Your task to perform on an android device: Go to Yahoo.com Image 0: 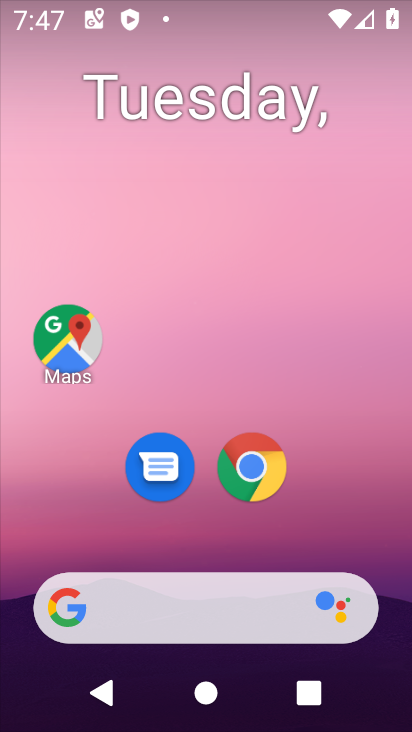
Step 0: click (274, 69)
Your task to perform on an android device: Go to Yahoo.com Image 1: 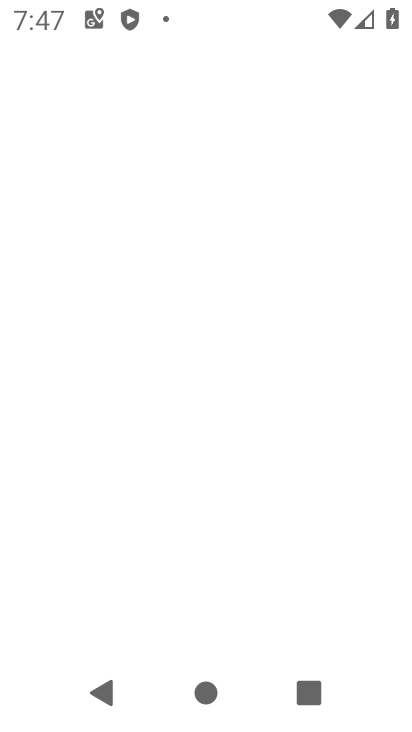
Step 1: press home button
Your task to perform on an android device: Go to Yahoo.com Image 2: 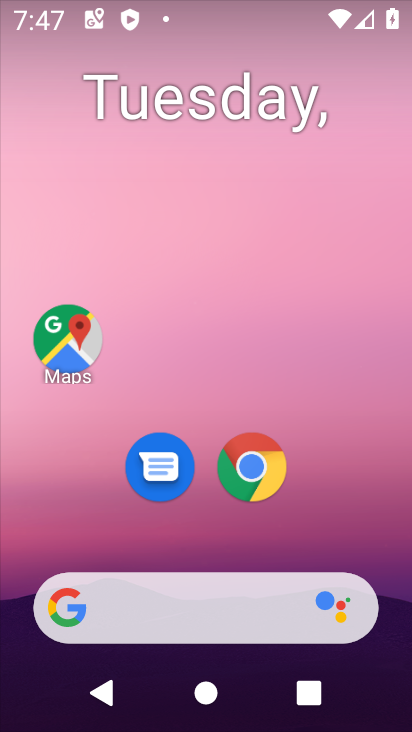
Step 2: click (258, 467)
Your task to perform on an android device: Go to Yahoo.com Image 3: 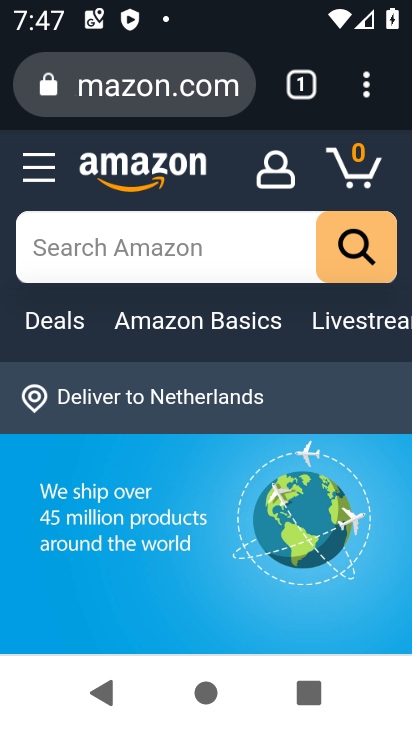
Step 3: click (313, 79)
Your task to perform on an android device: Go to Yahoo.com Image 4: 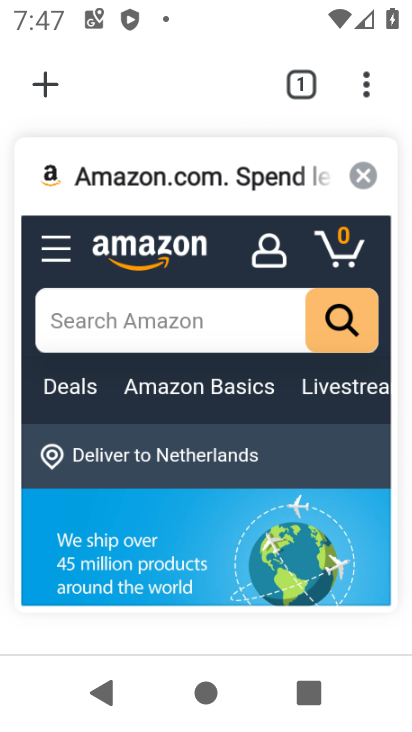
Step 4: click (46, 78)
Your task to perform on an android device: Go to Yahoo.com Image 5: 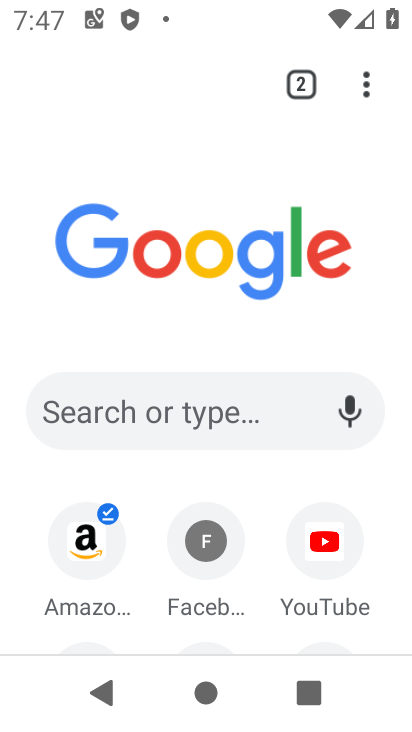
Step 5: drag from (394, 551) to (351, 253)
Your task to perform on an android device: Go to Yahoo.com Image 6: 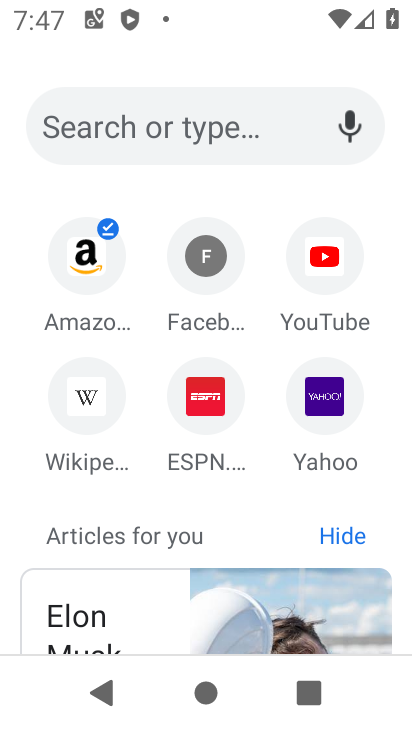
Step 6: click (326, 388)
Your task to perform on an android device: Go to Yahoo.com Image 7: 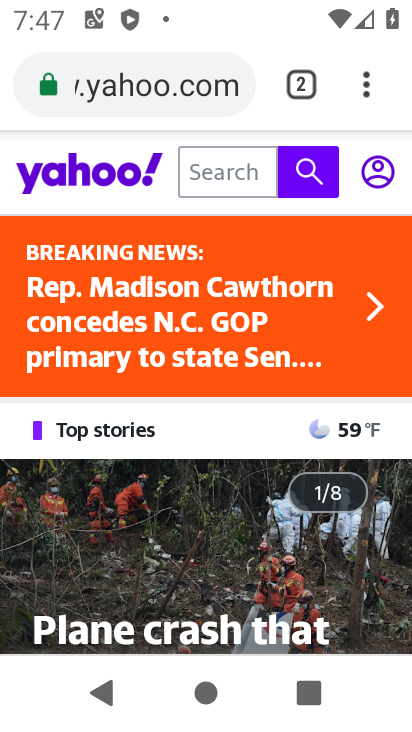
Step 7: task complete